Your task to perform on an android device: Go to sound settings Image 0: 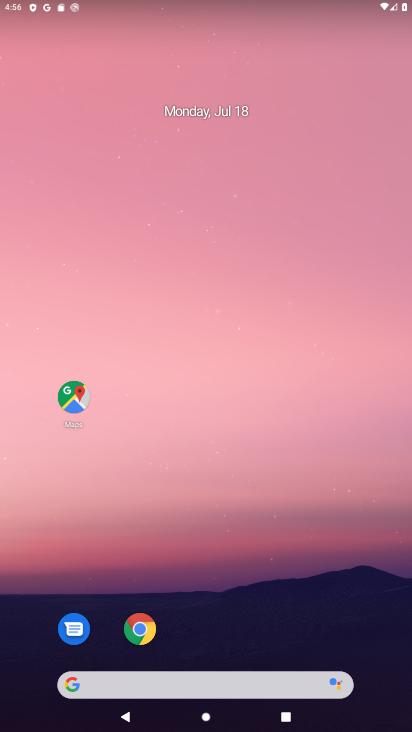
Step 0: drag from (265, 627) to (288, 115)
Your task to perform on an android device: Go to sound settings Image 1: 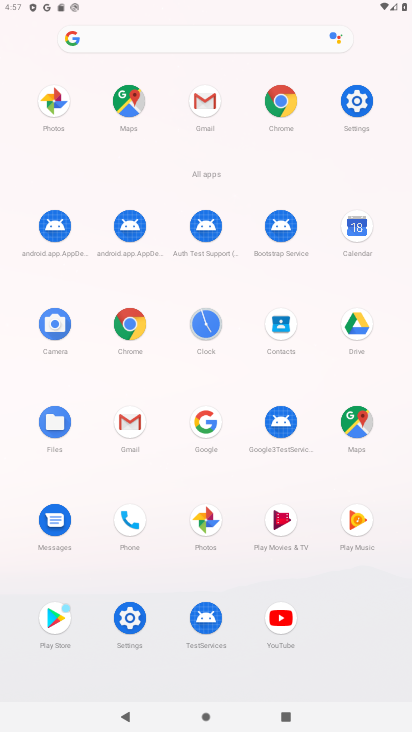
Step 1: click (356, 93)
Your task to perform on an android device: Go to sound settings Image 2: 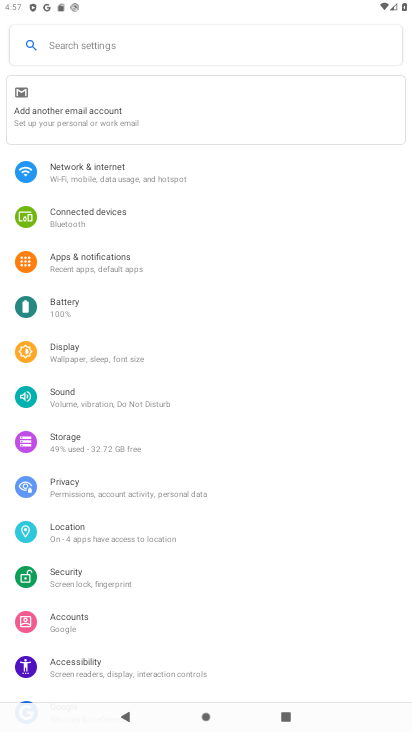
Step 2: click (74, 392)
Your task to perform on an android device: Go to sound settings Image 3: 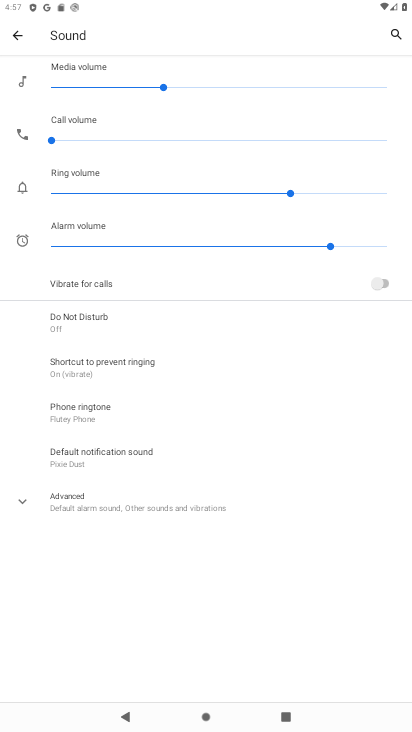
Step 3: task complete